Your task to perform on an android device: Find coffee shops on Maps Image 0: 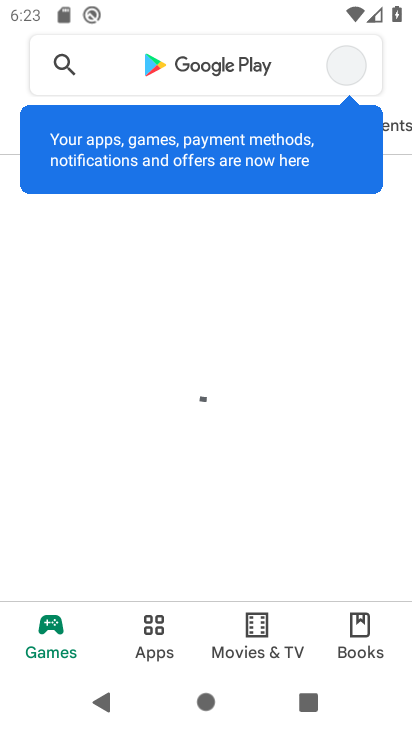
Step 0: press home button
Your task to perform on an android device: Find coffee shops on Maps Image 1: 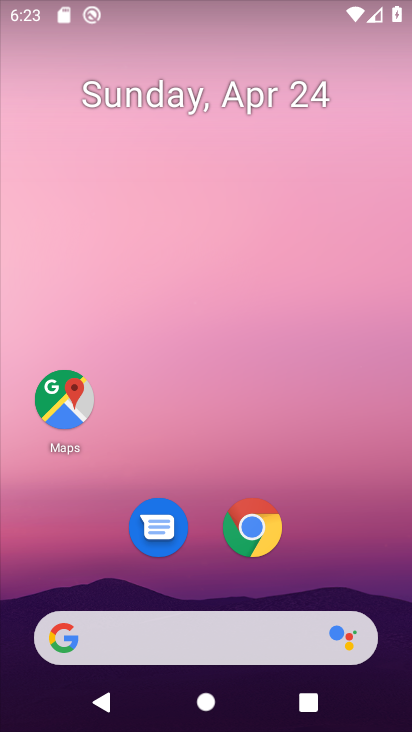
Step 1: click (61, 409)
Your task to perform on an android device: Find coffee shops on Maps Image 2: 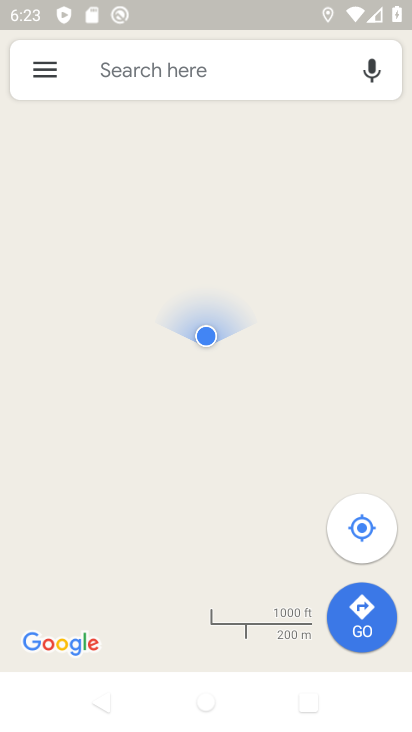
Step 2: click (129, 64)
Your task to perform on an android device: Find coffee shops on Maps Image 3: 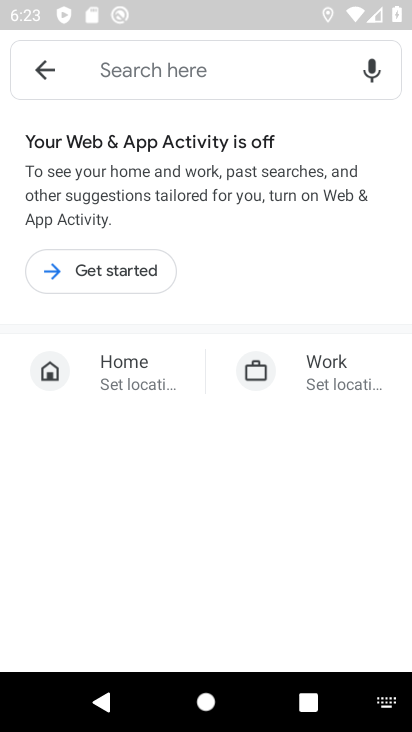
Step 3: type "coffee shops "
Your task to perform on an android device: Find coffee shops on Maps Image 4: 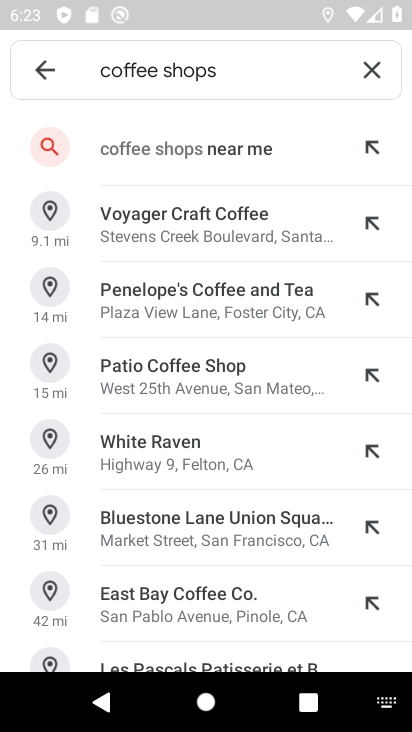
Step 4: click (187, 149)
Your task to perform on an android device: Find coffee shops on Maps Image 5: 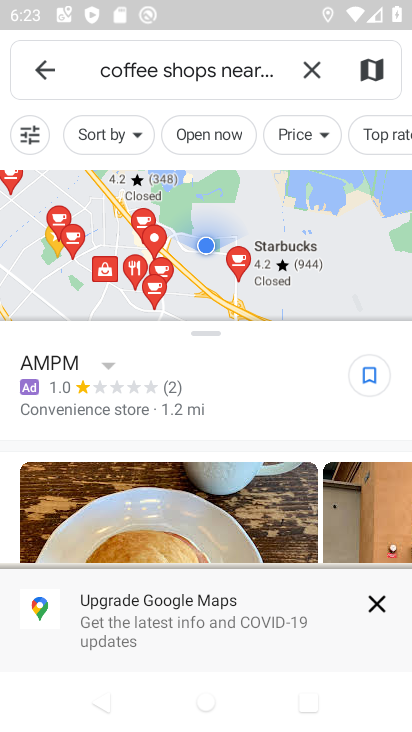
Step 5: task complete